Your task to perform on an android device: open chrome and create a bookmark for the current page Image 0: 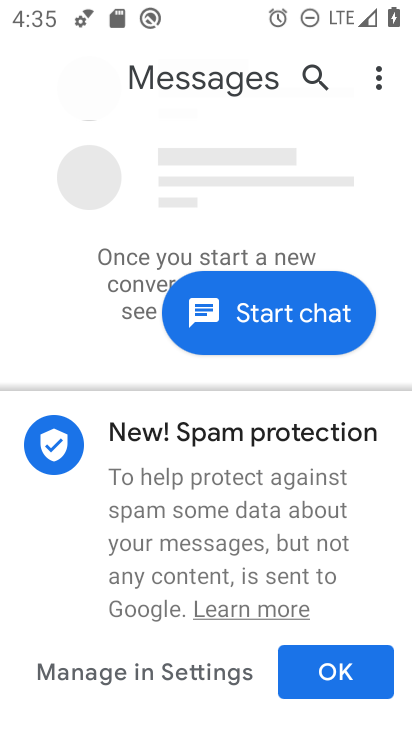
Step 0: press home button
Your task to perform on an android device: open chrome and create a bookmark for the current page Image 1: 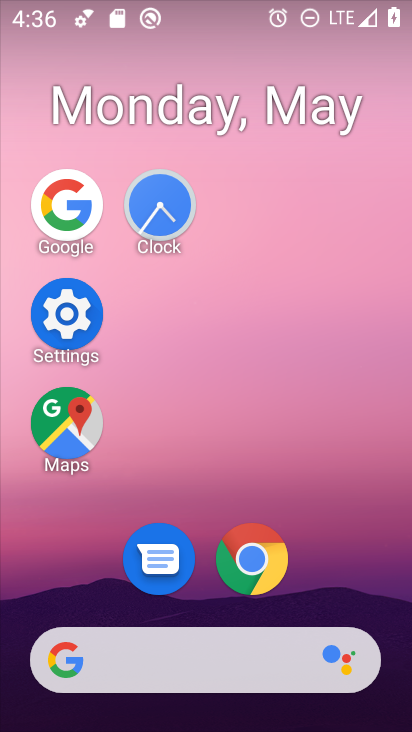
Step 1: click (252, 577)
Your task to perform on an android device: open chrome and create a bookmark for the current page Image 2: 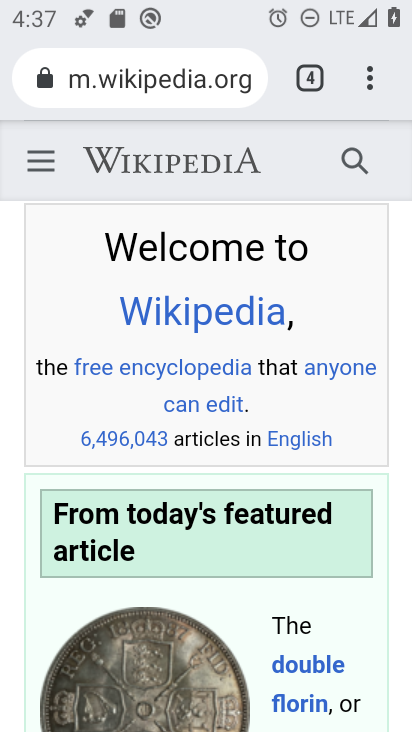
Step 2: click (380, 80)
Your task to perform on an android device: open chrome and create a bookmark for the current page Image 3: 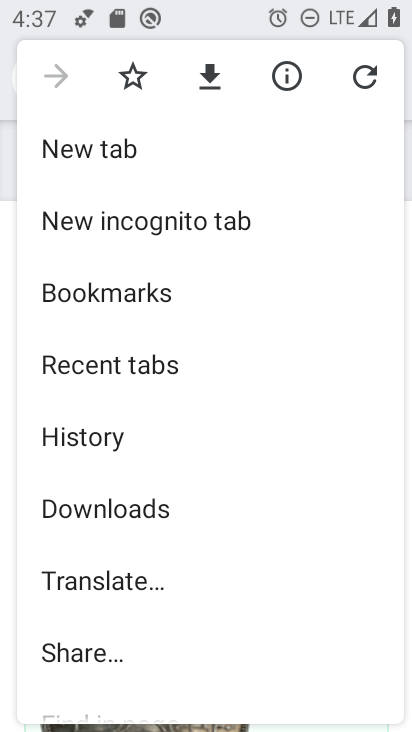
Step 3: click (125, 75)
Your task to perform on an android device: open chrome and create a bookmark for the current page Image 4: 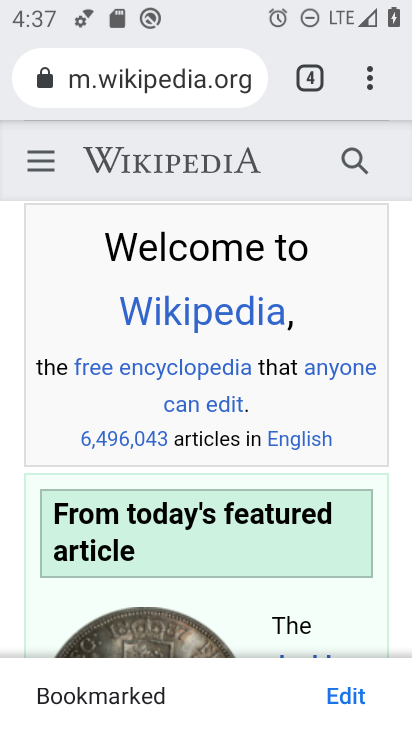
Step 4: task complete